Your task to perform on an android device: When is my next appointment? Image 0: 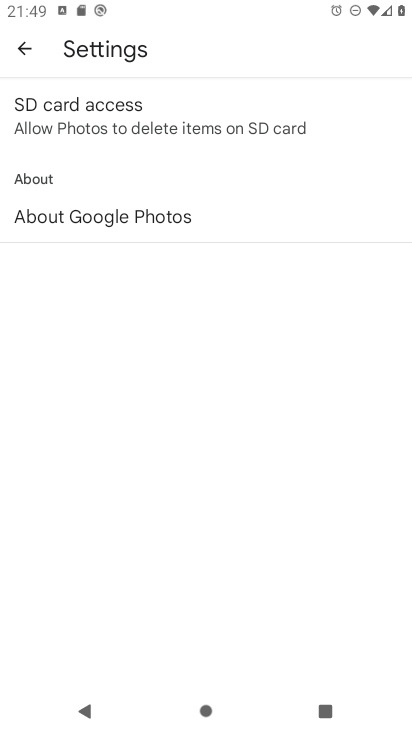
Step 0: press home button
Your task to perform on an android device: When is my next appointment? Image 1: 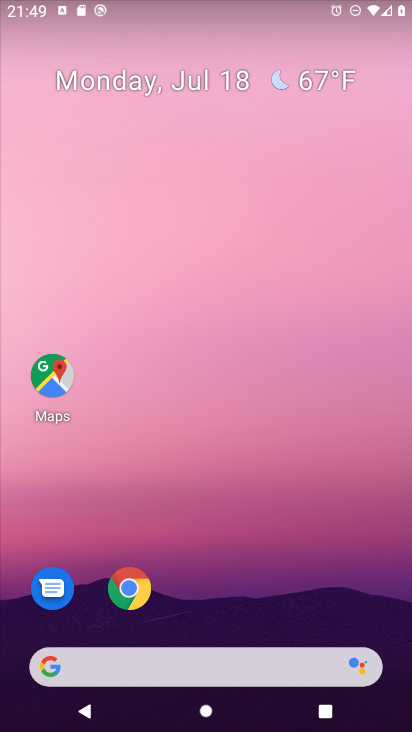
Step 1: drag from (365, 619) to (302, 195)
Your task to perform on an android device: When is my next appointment? Image 2: 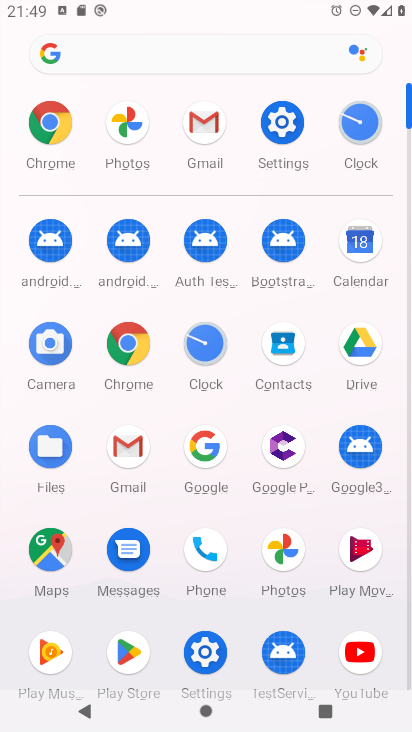
Step 2: click (365, 241)
Your task to perform on an android device: When is my next appointment? Image 3: 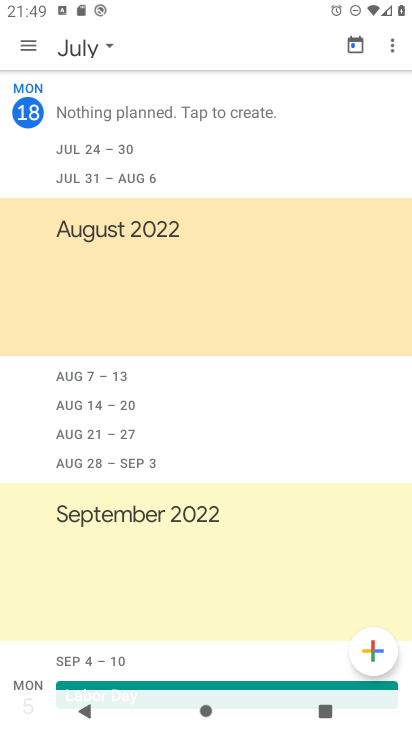
Step 3: task complete